Your task to perform on an android device: open device folders in google photos Image 0: 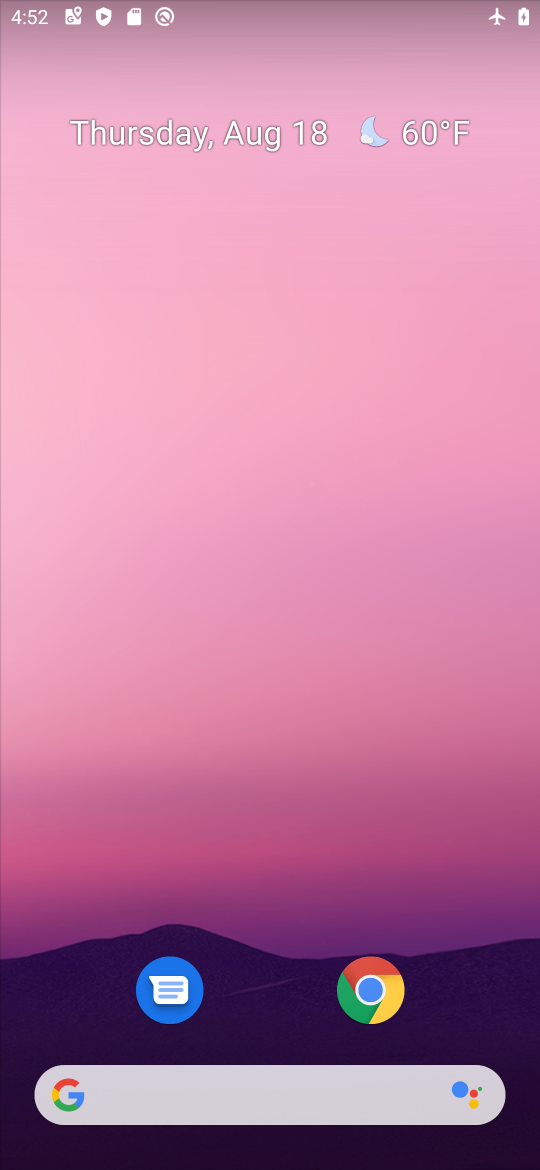
Step 0: drag from (291, 973) to (361, 244)
Your task to perform on an android device: open device folders in google photos Image 1: 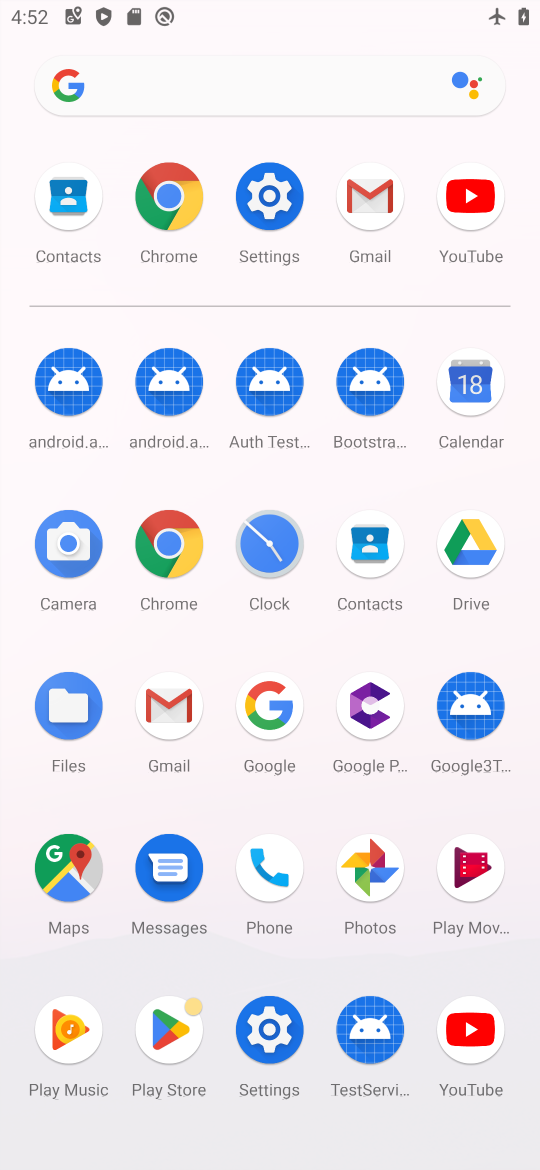
Step 1: click (369, 861)
Your task to perform on an android device: open device folders in google photos Image 2: 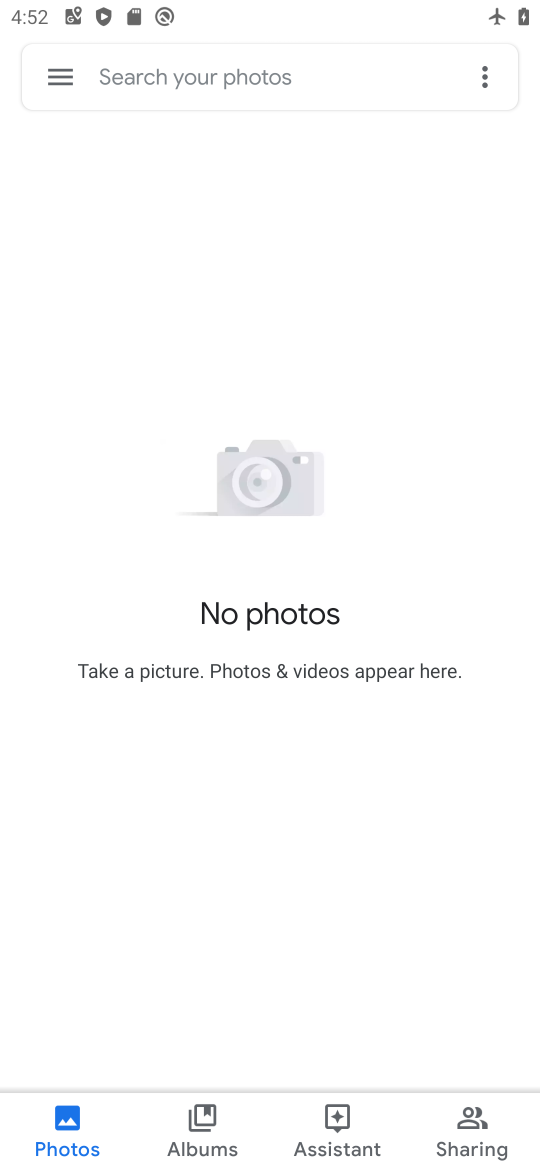
Step 2: click (479, 53)
Your task to perform on an android device: open device folders in google photos Image 3: 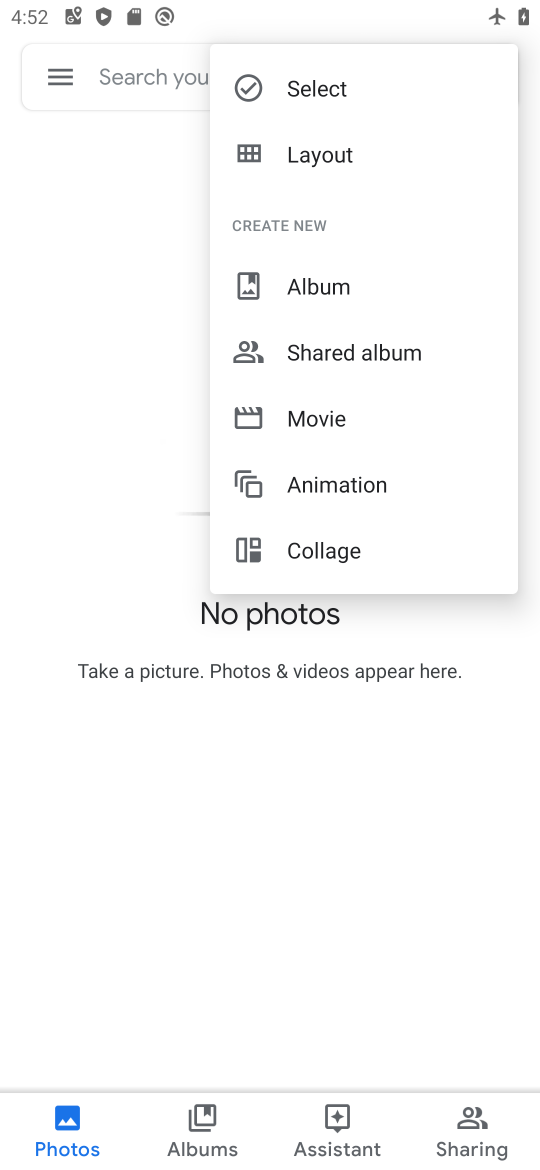
Step 3: click (437, 1072)
Your task to perform on an android device: open device folders in google photos Image 4: 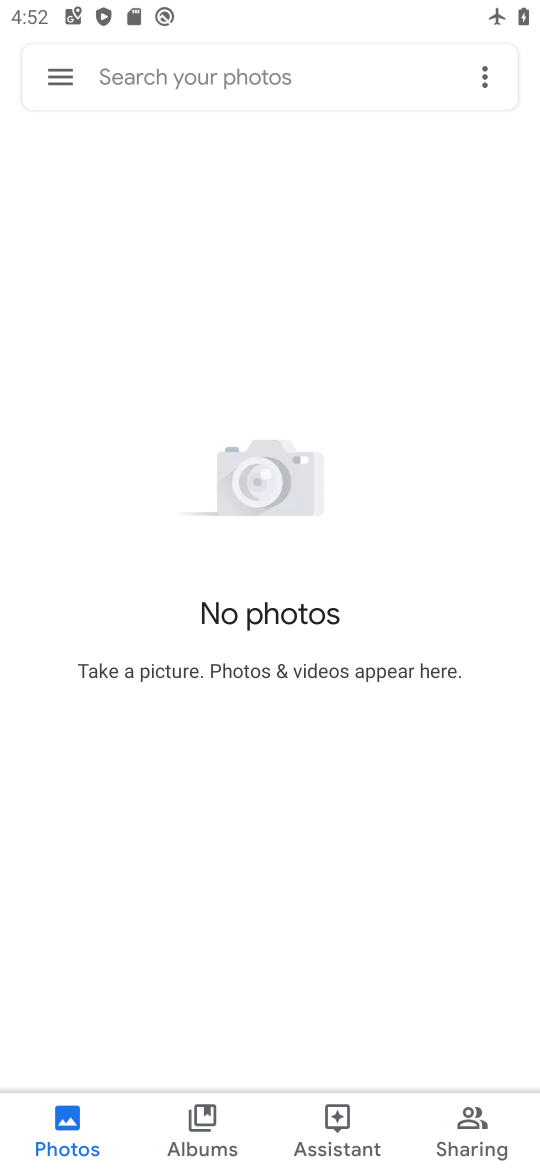
Step 4: click (64, 105)
Your task to perform on an android device: open device folders in google photos Image 5: 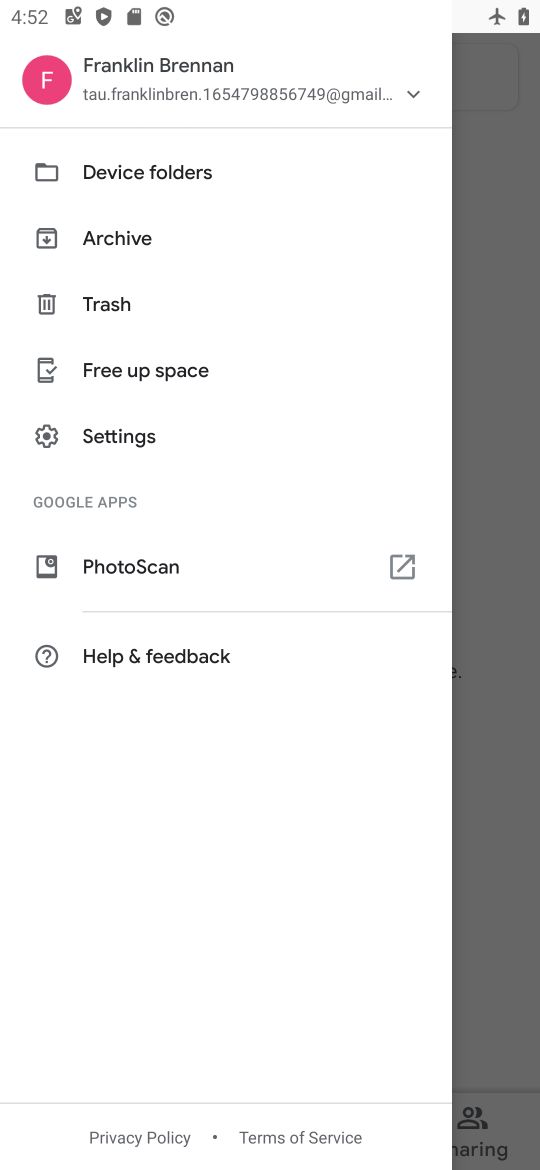
Step 5: click (127, 151)
Your task to perform on an android device: open device folders in google photos Image 6: 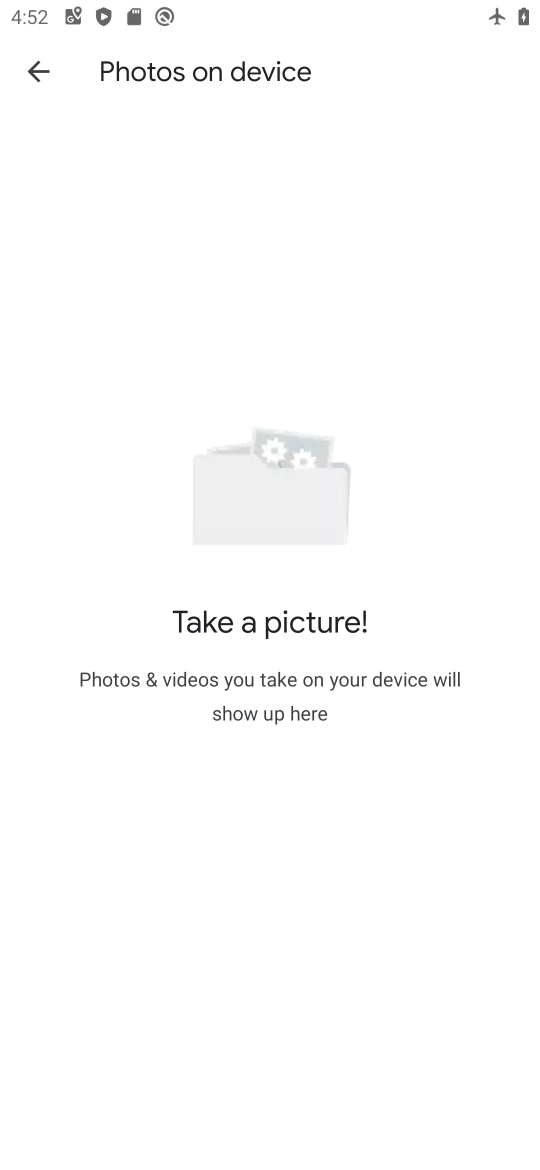
Step 6: task complete